Your task to perform on an android device: turn notification dots on Image 0: 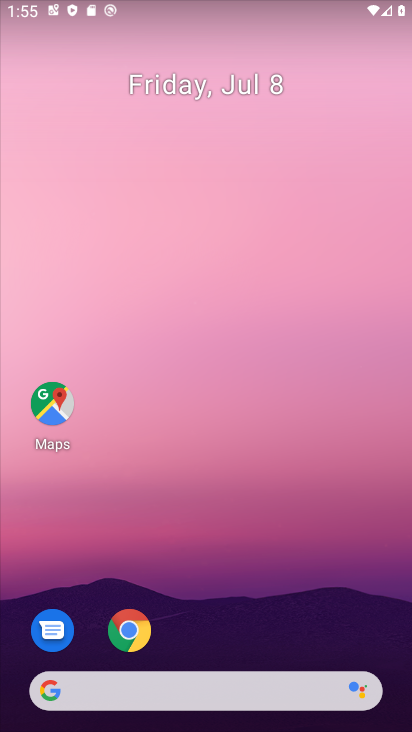
Step 0: press home button
Your task to perform on an android device: turn notification dots on Image 1: 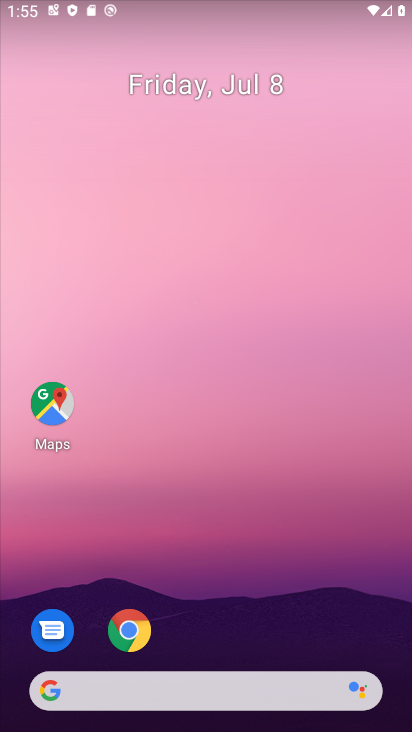
Step 1: drag from (215, 641) to (245, 79)
Your task to perform on an android device: turn notification dots on Image 2: 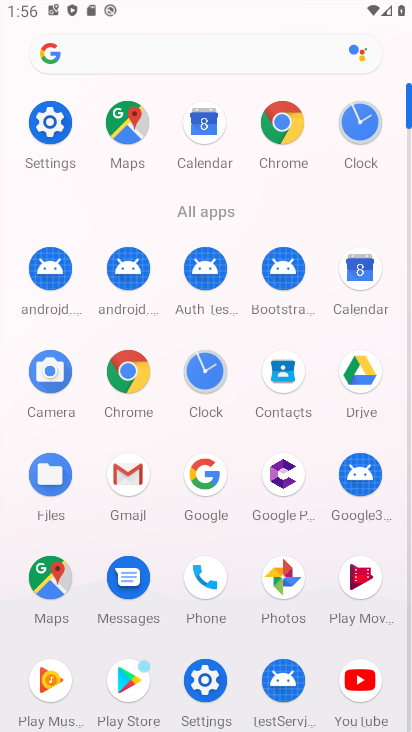
Step 2: click (51, 119)
Your task to perform on an android device: turn notification dots on Image 3: 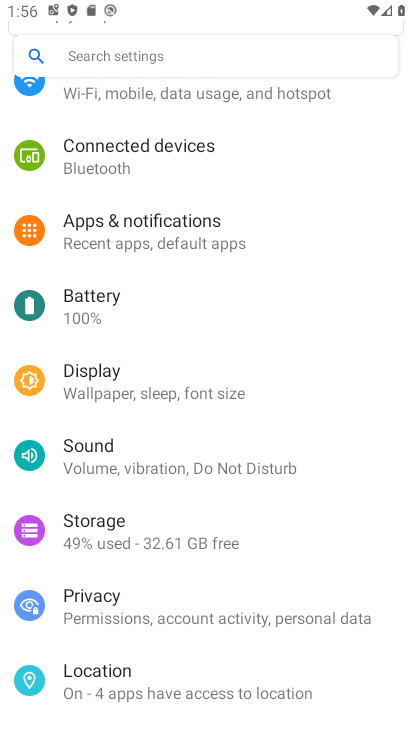
Step 3: click (200, 227)
Your task to perform on an android device: turn notification dots on Image 4: 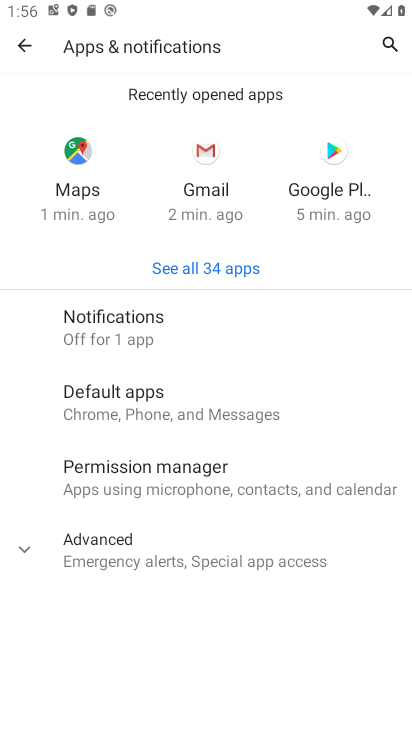
Step 4: click (172, 332)
Your task to perform on an android device: turn notification dots on Image 5: 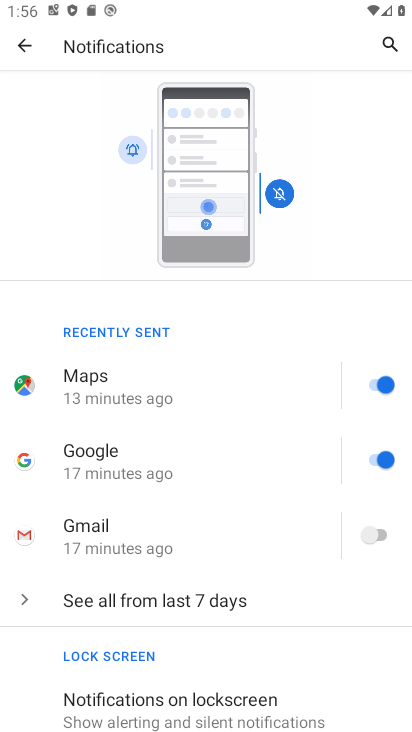
Step 5: drag from (236, 679) to (245, 148)
Your task to perform on an android device: turn notification dots on Image 6: 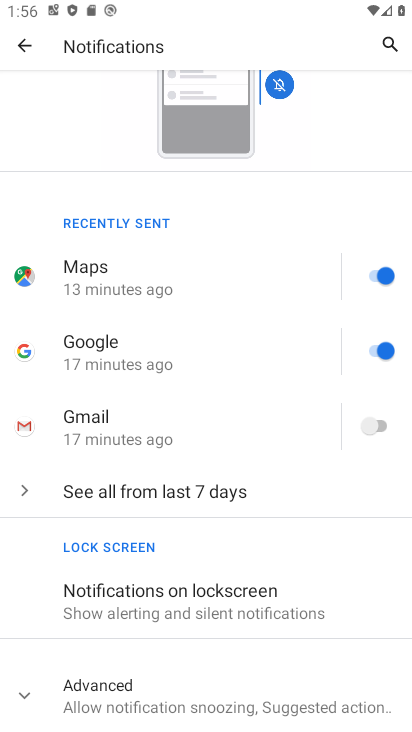
Step 6: click (22, 690)
Your task to perform on an android device: turn notification dots on Image 7: 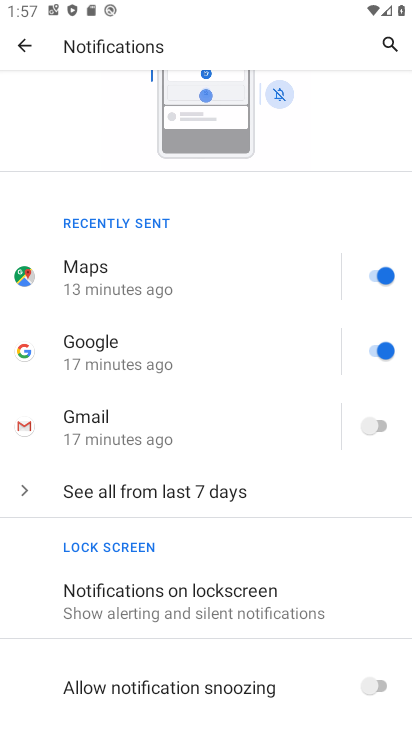
Step 7: task complete